Your task to perform on an android device: turn off smart reply in the gmail app Image 0: 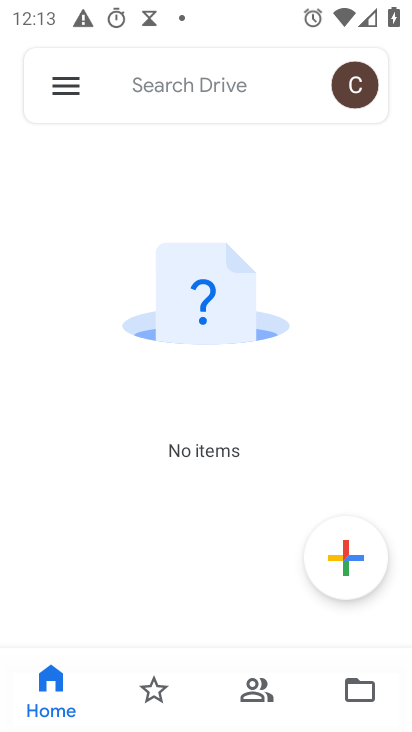
Step 0: press home button
Your task to perform on an android device: turn off smart reply in the gmail app Image 1: 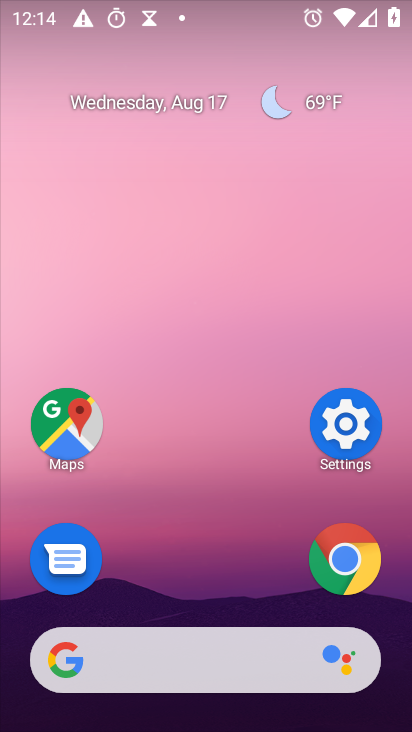
Step 1: drag from (185, 629) to (301, 3)
Your task to perform on an android device: turn off smart reply in the gmail app Image 2: 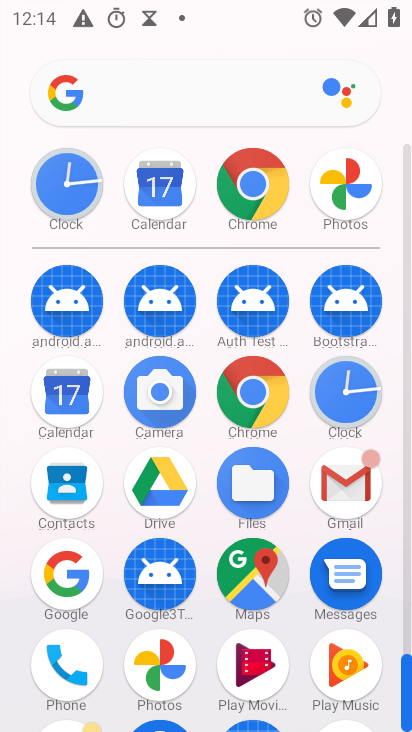
Step 2: click (358, 489)
Your task to perform on an android device: turn off smart reply in the gmail app Image 3: 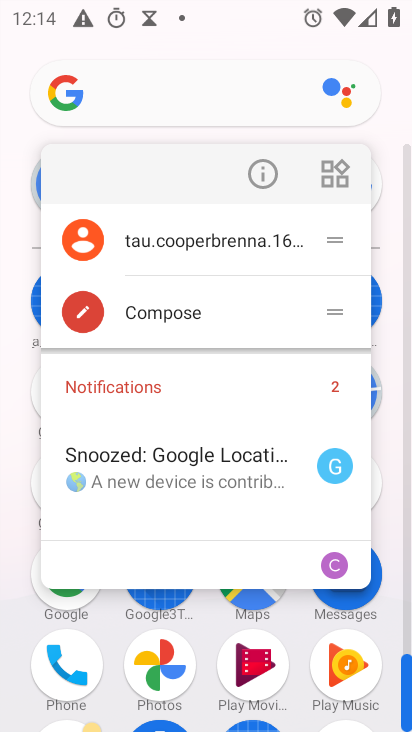
Step 3: click (372, 475)
Your task to perform on an android device: turn off smart reply in the gmail app Image 4: 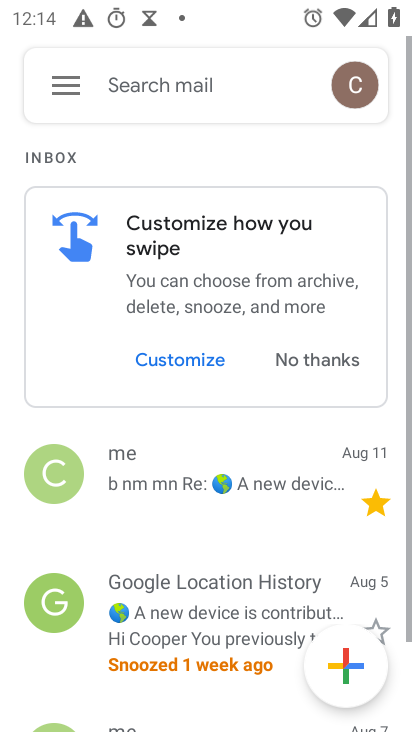
Step 4: click (72, 75)
Your task to perform on an android device: turn off smart reply in the gmail app Image 5: 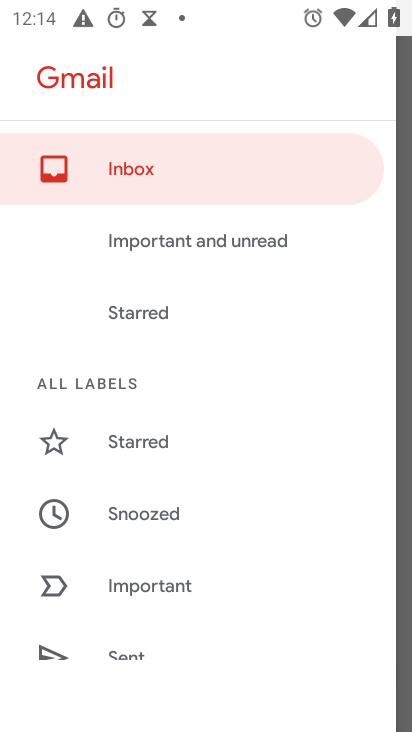
Step 5: drag from (189, 637) to (289, 210)
Your task to perform on an android device: turn off smart reply in the gmail app Image 6: 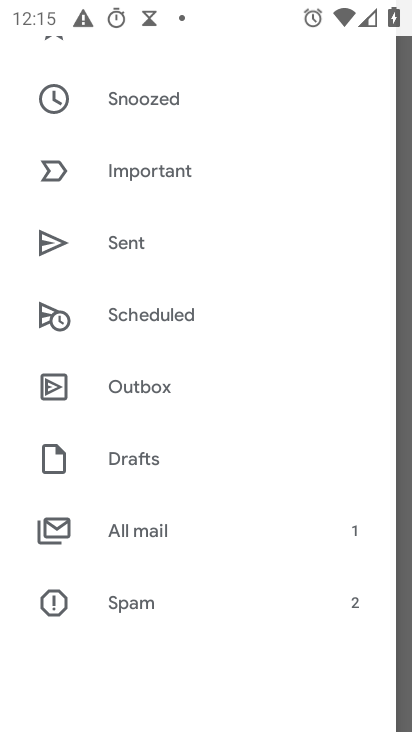
Step 6: drag from (198, 619) to (287, 107)
Your task to perform on an android device: turn off smart reply in the gmail app Image 7: 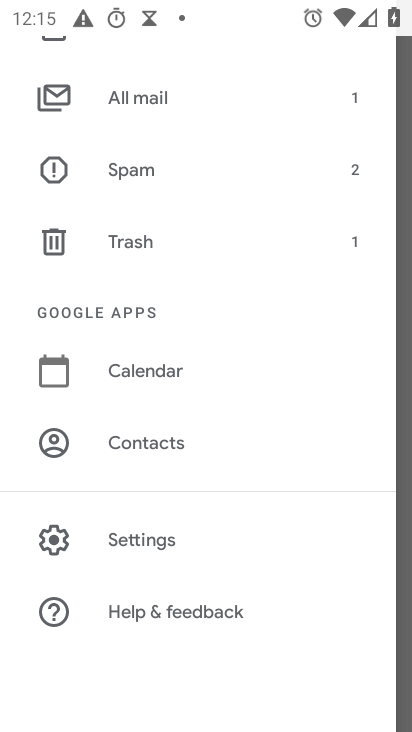
Step 7: click (154, 547)
Your task to perform on an android device: turn off smart reply in the gmail app Image 8: 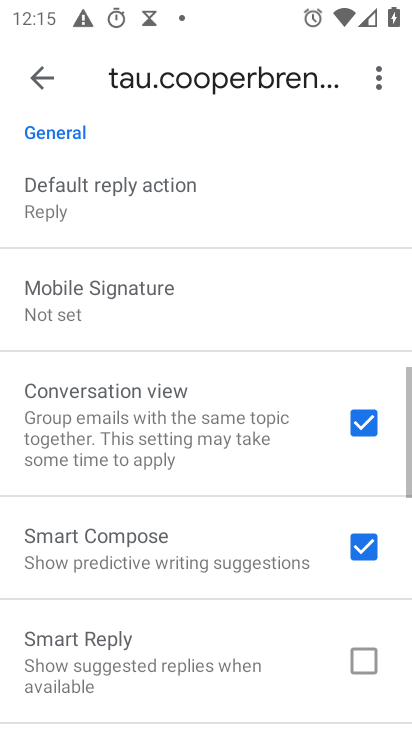
Step 8: task complete